Your task to perform on an android device: Show the shopping cart on amazon.com. Search for bose soundlink mini on amazon.com, select the first entry, and add it to the cart. Image 0: 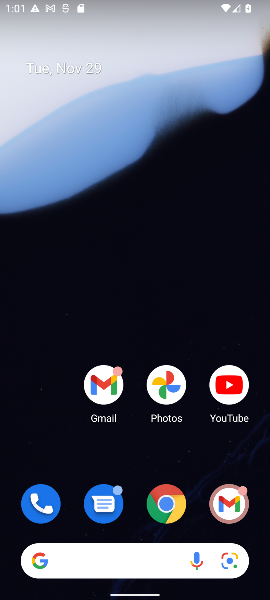
Step 0: click (166, 510)
Your task to perform on an android device: Show the shopping cart on amazon.com. Search for bose soundlink mini on amazon.com, select the first entry, and add it to the cart. Image 1: 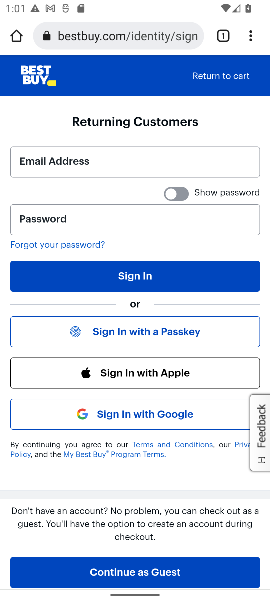
Step 1: click (114, 40)
Your task to perform on an android device: Show the shopping cart on amazon.com. Search for bose soundlink mini on amazon.com, select the first entry, and add it to the cart. Image 2: 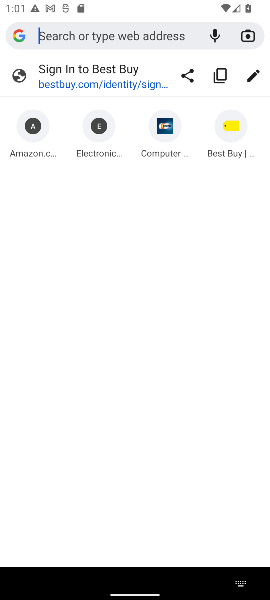
Step 2: click (31, 144)
Your task to perform on an android device: Show the shopping cart on amazon.com. Search for bose soundlink mini on amazon.com, select the first entry, and add it to the cart. Image 3: 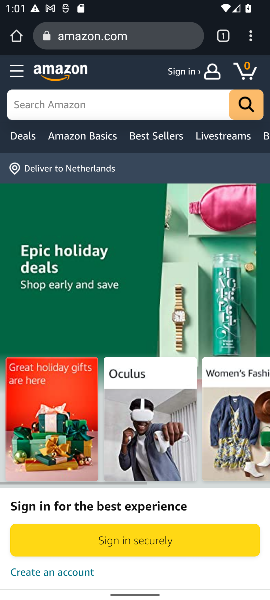
Step 3: click (244, 70)
Your task to perform on an android device: Show the shopping cart on amazon.com. Search for bose soundlink mini on amazon.com, select the first entry, and add it to the cart. Image 4: 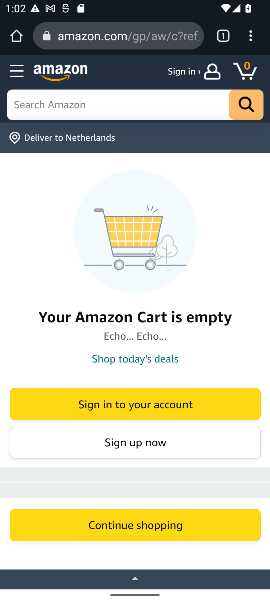
Step 4: click (36, 101)
Your task to perform on an android device: Show the shopping cart on amazon.com. Search for bose soundlink mini on amazon.com, select the first entry, and add it to the cart. Image 5: 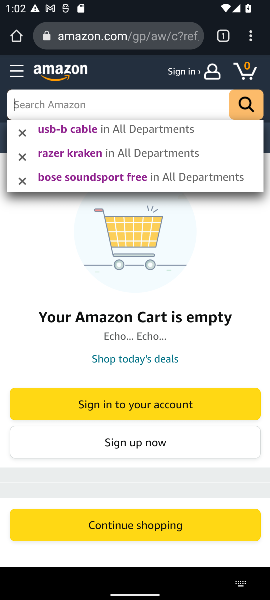
Step 5: type "bose soundlink mini"
Your task to perform on an android device: Show the shopping cart on amazon.com. Search for bose soundlink mini on amazon.com, select the first entry, and add it to the cart. Image 6: 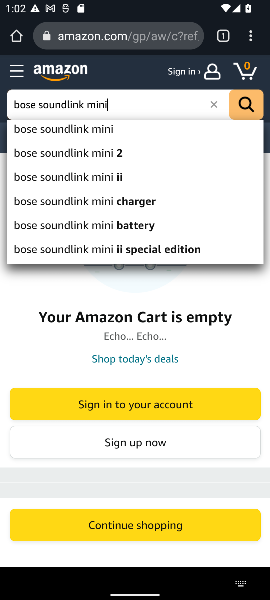
Step 6: click (90, 134)
Your task to perform on an android device: Show the shopping cart on amazon.com. Search for bose soundlink mini on amazon.com, select the first entry, and add it to the cart. Image 7: 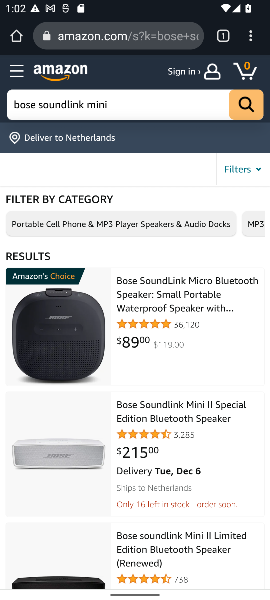
Step 7: task complete